Your task to perform on an android device: What's the weather going to be this weekend? Image 0: 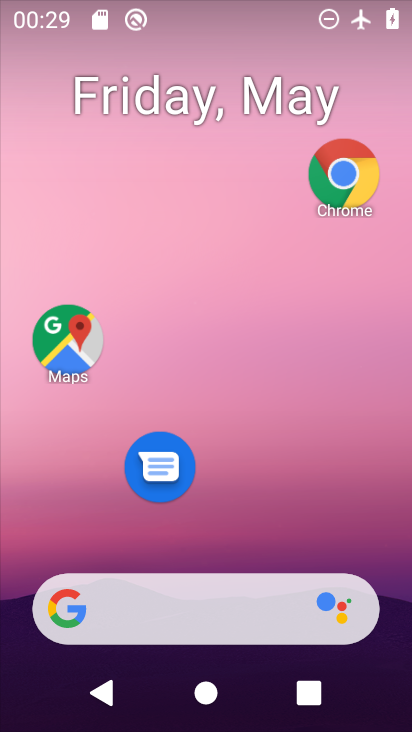
Step 0: drag from (207, 509) to (233, 202)
Your task to perform on an android device: What's the weather going to be this weekend? Image 1: 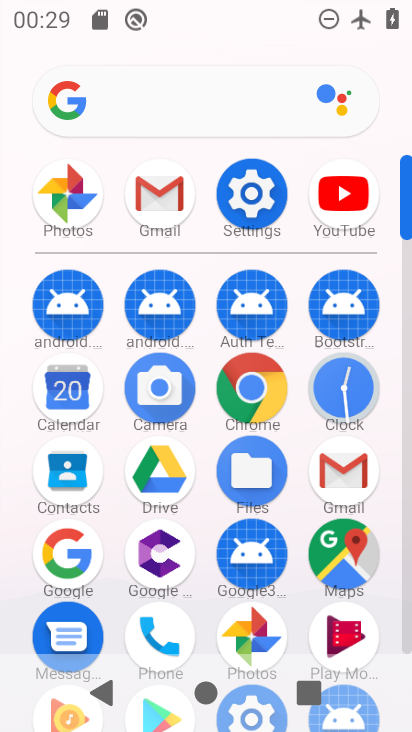
Step 1: click (238, 384)
Your task to perform on an android device: What's the weather going to be this weekend? Image 2: 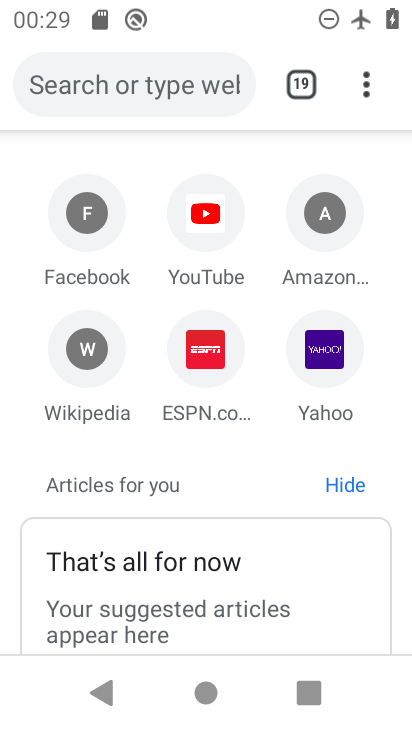
Step 2: click (353, 77)
Your task to perform on an android device: What's the weather going to be this weekend? Image 3: 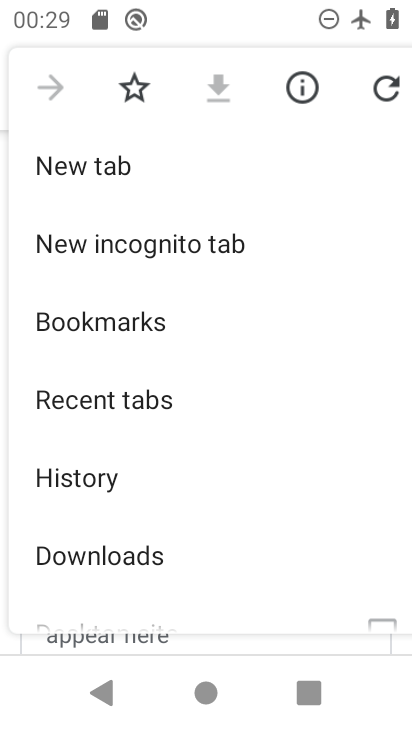
Step 3: click (124, 165)
Your task to perform on an android device: What's the weather going to be this weekend? Image 4: 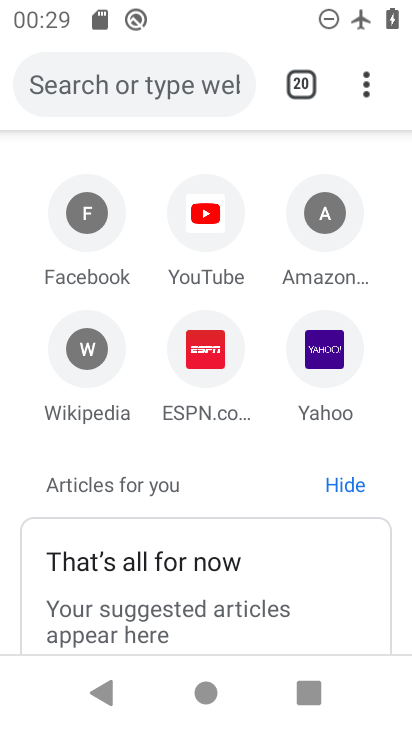
Step 4: click (132, 76)
Your task to perform on an android device: What's the weather going to be this weekend? Image 5: 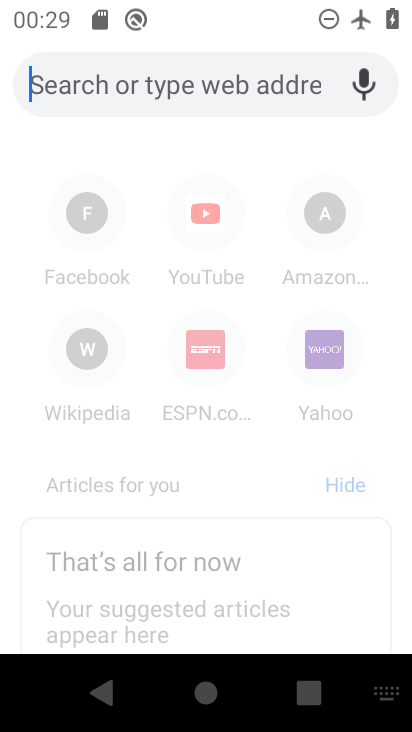
Step 5: type "What's the weather going to be this weekend?"
Your task to perform on an android device: What's the weather going to be this weekend? Image 6: 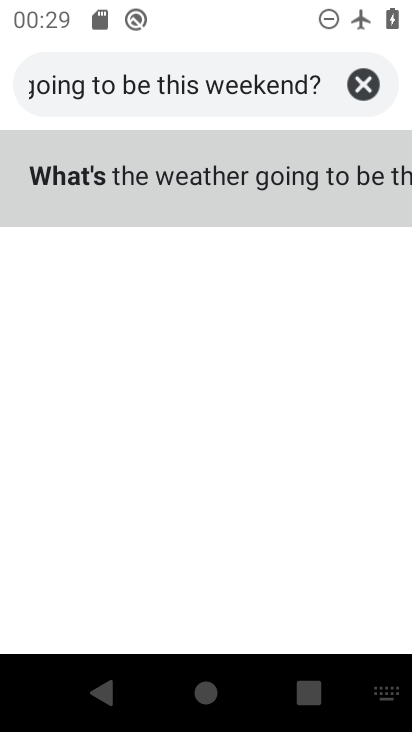
Step 6: click (200, 163)
Your task to perform on an android device: What's the weather going to be this weekend? Image 7: 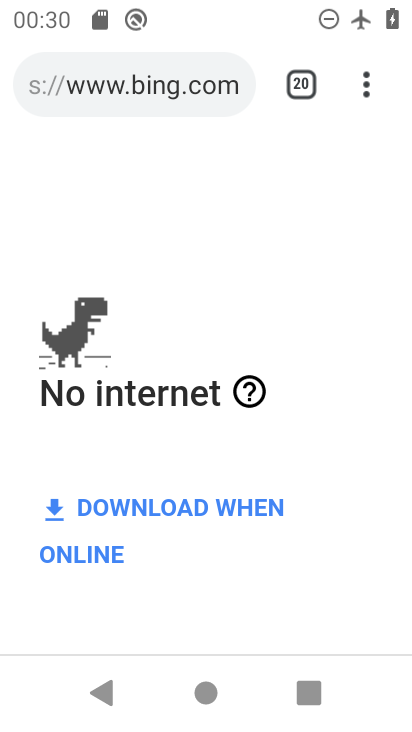
Step 7: task complete